Your task to perform on an android device: make emails show in primary in the gmail app Image 0: 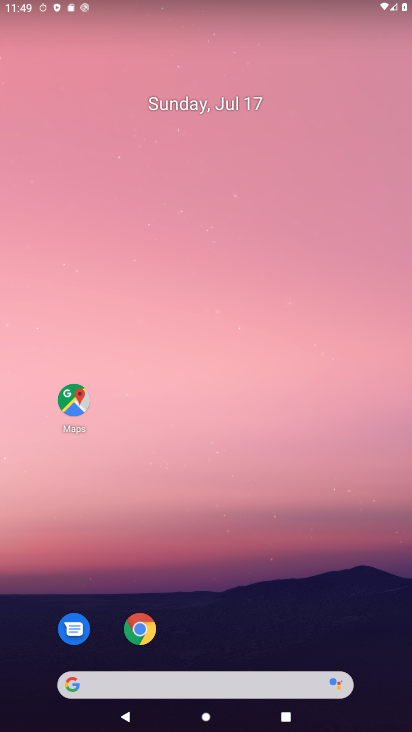
Step 0: press home button
Your task to perform on an android device: make emails show in primary in the gmail app Image 1: 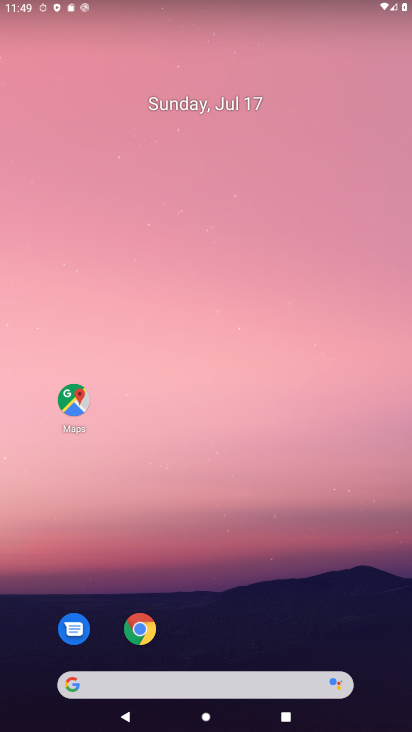
Step 1: drag from (207, 646) to (242, 92)
Your task to perform on an android device: make emails show in primary in the gmail app Image 2: 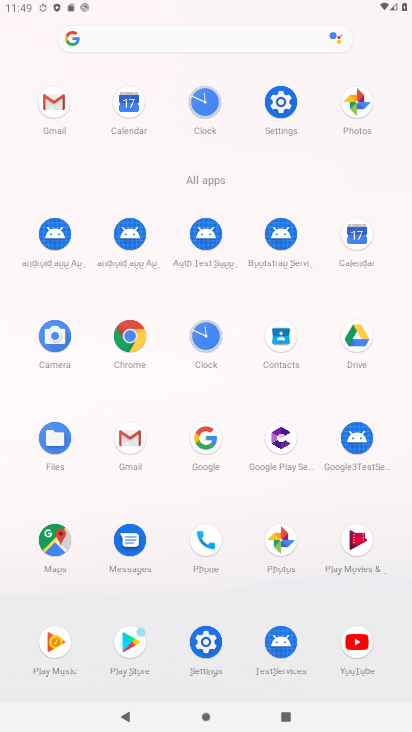
Step 2: click (127, 429)
Your task to perform on an android device: make emails show in primary in the gmail app Image 3: 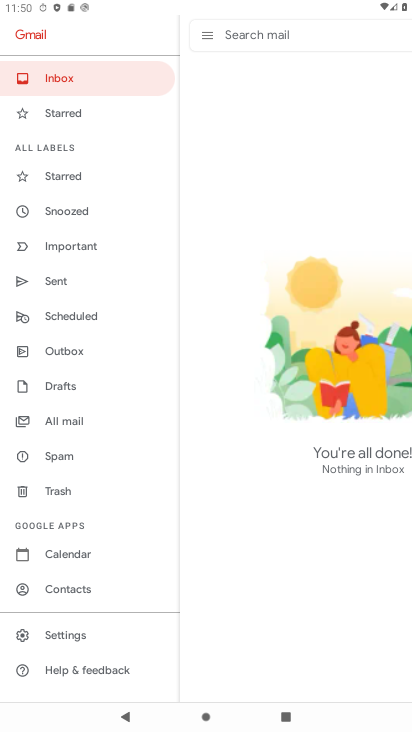
Step 3: click (95, 629)
Your task to perform on an android device: make emails show in primary in the gmail app Image 4: 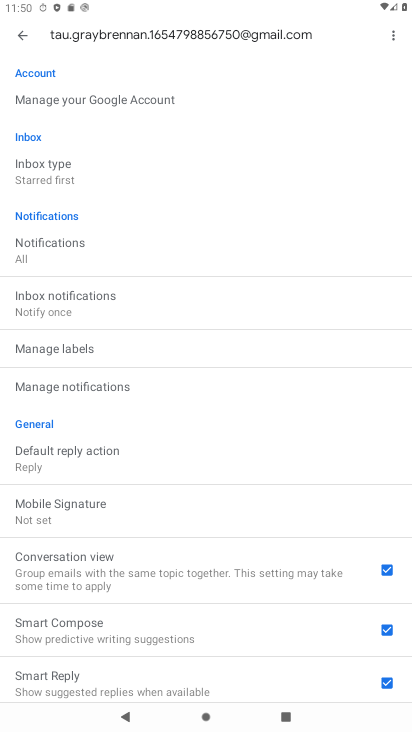
Step 4: click (83, 172)
Your task to perform on an android device: make emails show in primary in the gmail app Image 5: 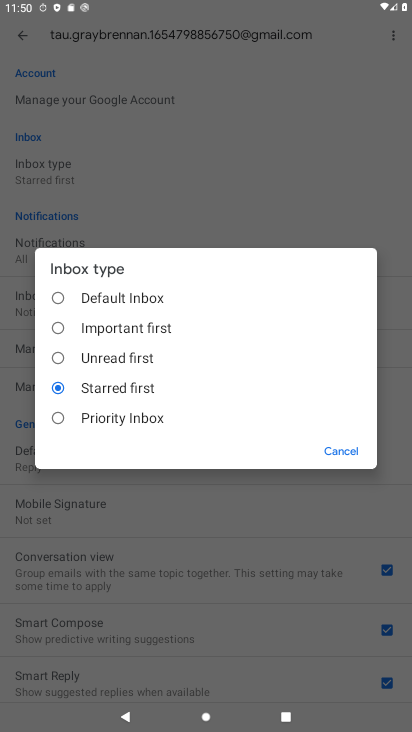
Step 5: click (61, 293)
Your task to perform on an android device: make emails show in primary in the gmail app Image 6: 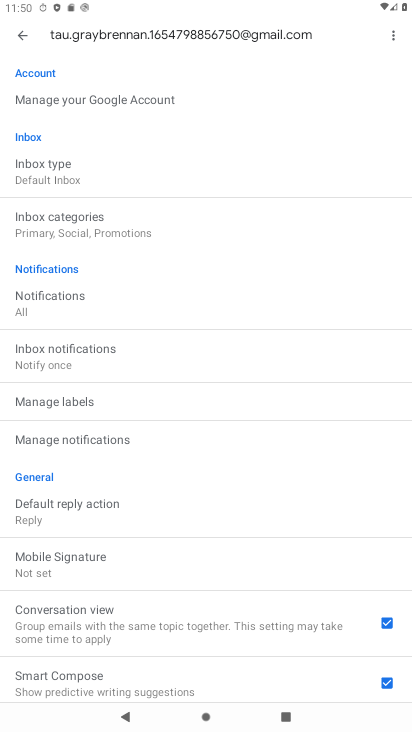
Step 6: task complete